Your task to perform on an android device: toggle data saver in the chrome app Image 0: 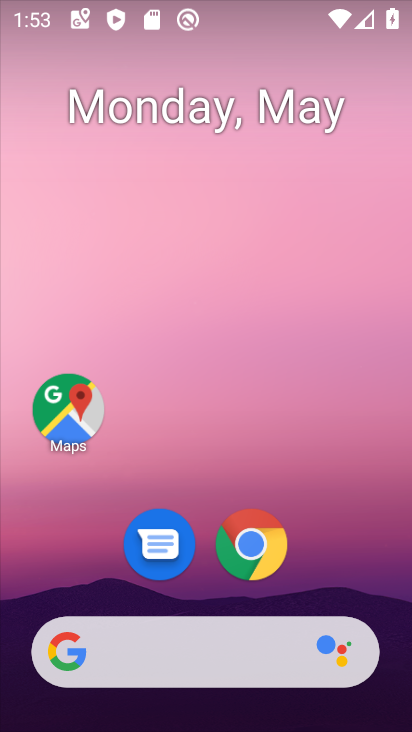
Step 0: drag from (372, 593) to (389, 322)
Your task to perform on an android device: toggle data saver in the chrome app Image 1: 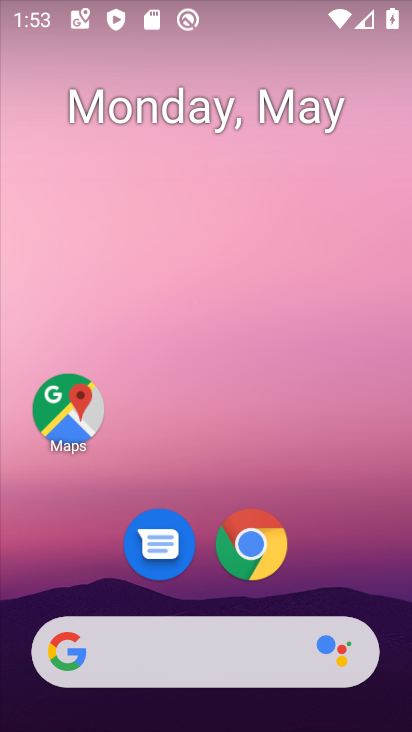
Step 1: drag from (343, 572) to (362, 283)
Your task to perform on an android device: toggle data saver in the chrome app Image 2: 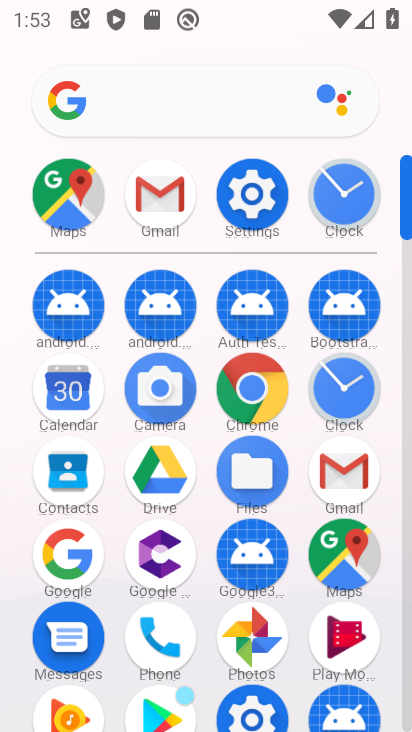
Step 2: click (279, 397)
Your task to perform on an android device: toggle data saver in the chrome app Image 3: 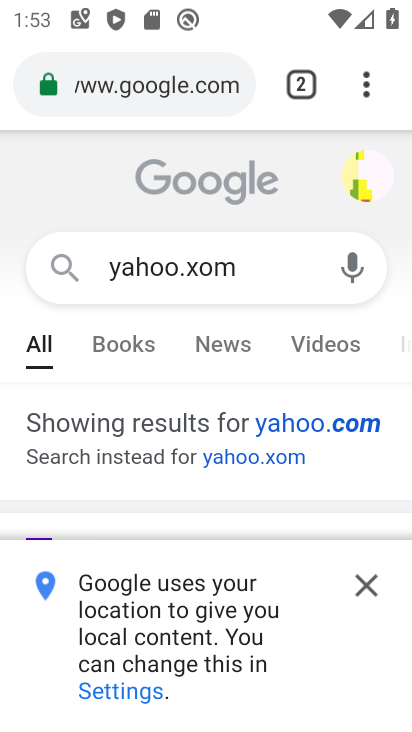
Step 3: click (366, 96)
Your task to perform on an android device: toggle data saver in the chrome app Image 4: 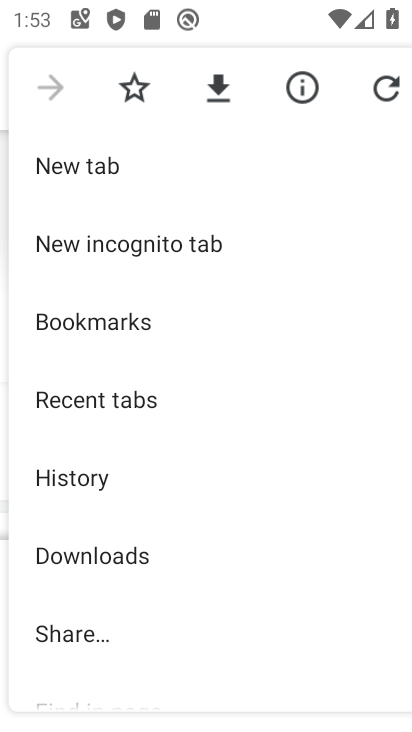
Step 4: drag from (301, 435) to (307, 392)
Your task to perform on an android device: toggle data saver in the chrome app Image 5: 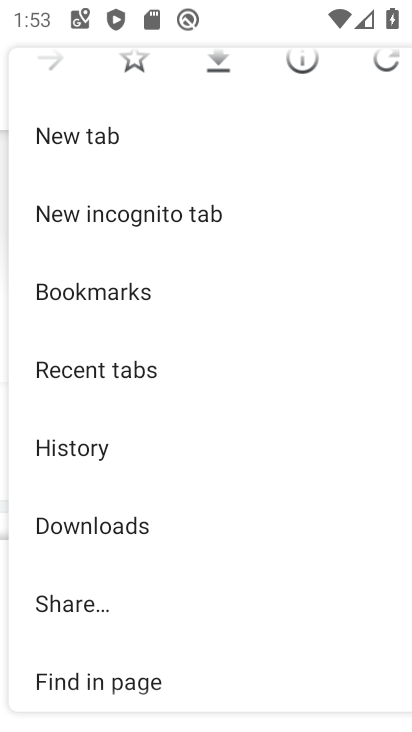
Step 5: drag from (297, 453) to (313, 378)
Your task to perform on an android device: toggle data saver in the chrome app Image 6: 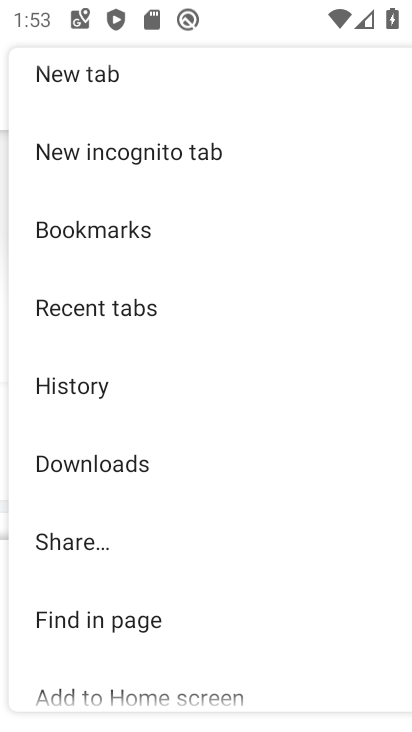
Step 6: drag from (302, 429) to (311, 295)
Your task to perform on an android device: toggle data saver in the chrome app Image 7: 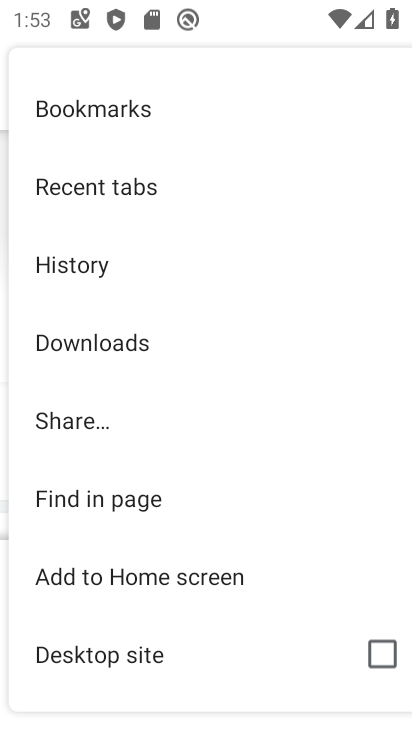
Step 7: drag from (306, 402) to (314, 281)
Your task to perform on an android device: toggle data saver in the chrome app Image 8: 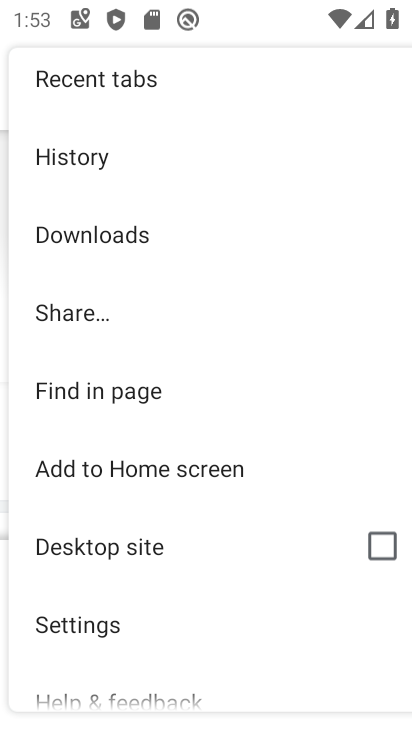
Step 8: drag from (282, 391) to (297, 277)
Your task to perform on an android device: toggle data saver in the chrome app Image 9: 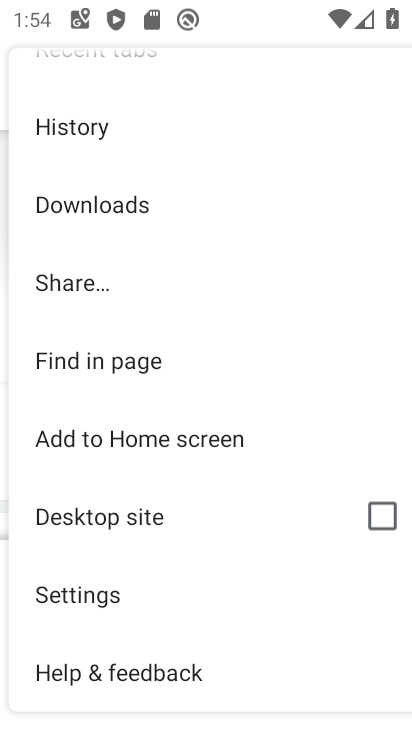
Step 9: drag from (282, 450) to (299, 337)
Your task to perform on an android device: toggle data saver in the chrome app Image 10: 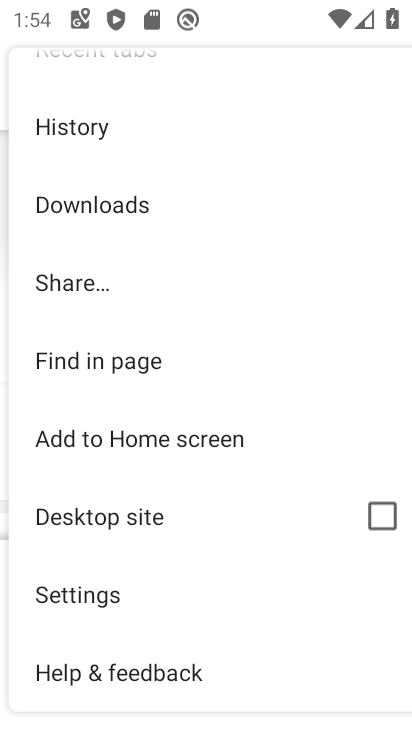
Step 10: click (174, 595)
Your task to perform on an android device: toggle data saver in the chrome app Image 11: 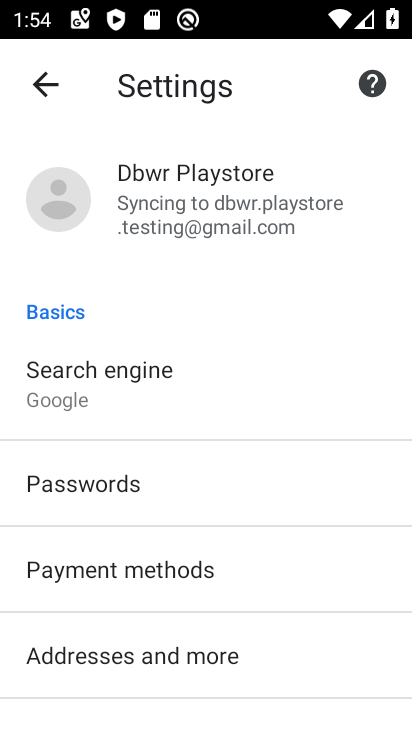
Step 11: drag from (293, 486) to (302, 446)
Your task to perform on an android device: toggle data saver in the chrome app Image 12: 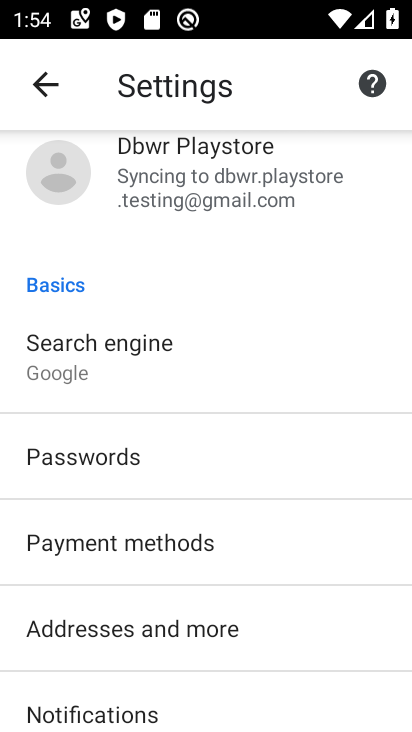
Step 12: drag from (305, 510) to (314, 457)
Your task to perform on an android device: toggle data saver in the chrome app Image 13: 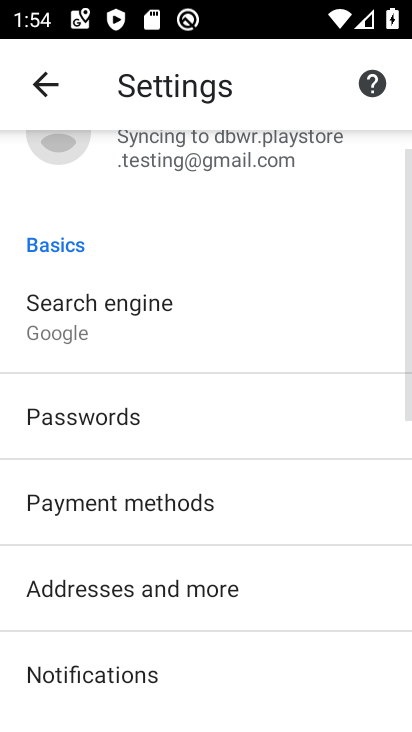
Step 13: drag from (304, 514) to (301, 474)
Your task to perform on an android device: toggle data saver in the chrome app Image 14: 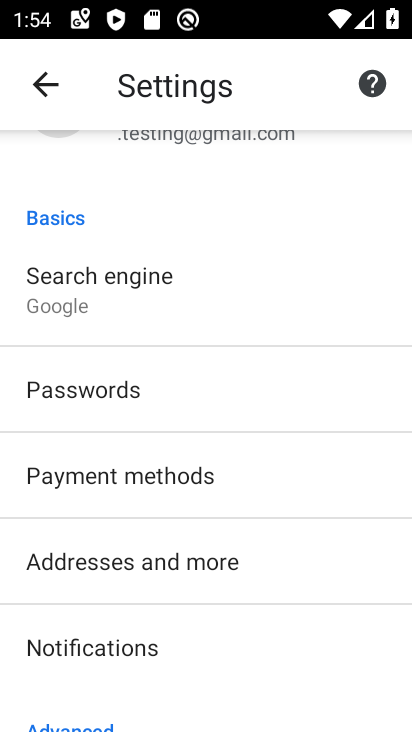
Step 14: drag from (297, 519) to (297, 474)
Your task to perform on an android device: toggle data saver in the chrome app Image 15: 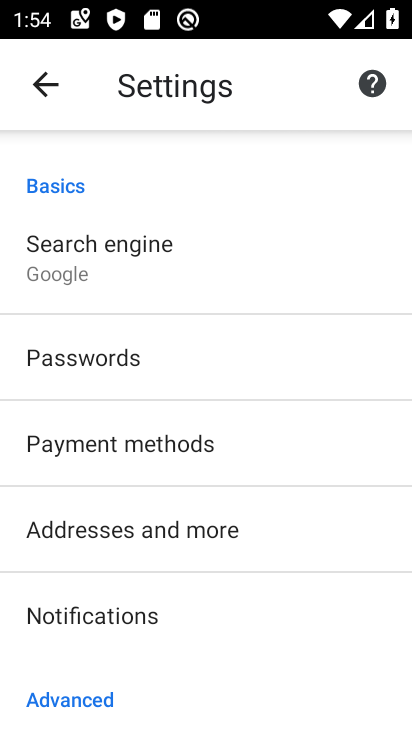
Step 15: click (300, 514)
Your task to perform on an android device: toggle data saver in the chrome app Image 16: 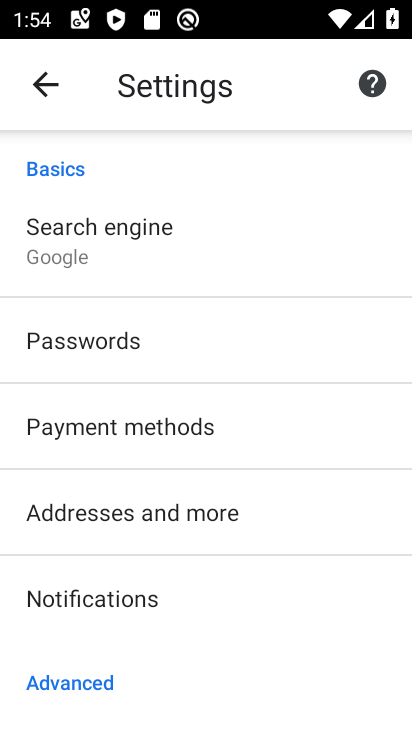
Step 16: click (311, 515)
Your task to perform on an android device: toggle data saver in the chrome app Image 17: 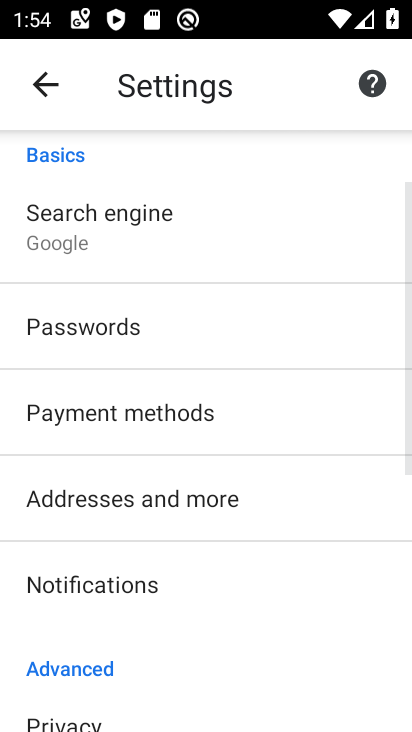
Step 17: click (305, 514)
Your task to perform on an android device: toggle data saver in the chrome app Image 18: 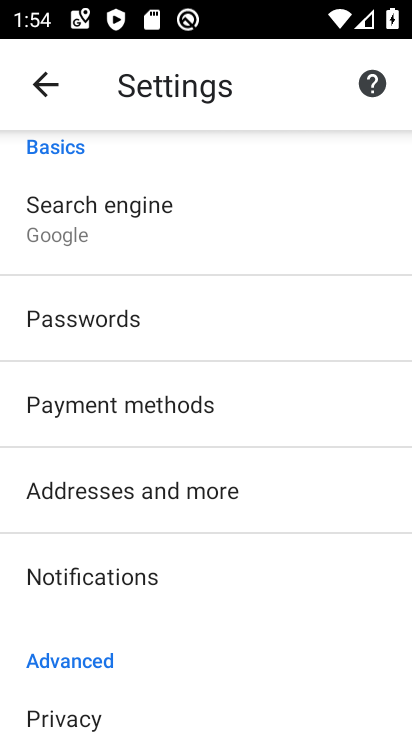
Step 18: drag from (299, 528) to (305, 485)
Your task to perform on an android device: toggle data saver in the chrome app Image 19: 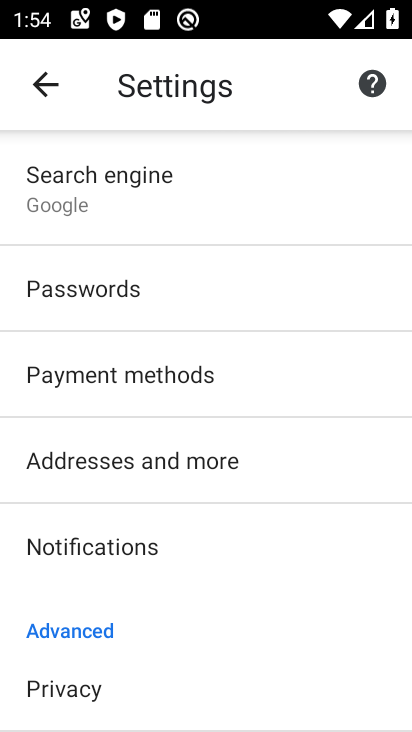
Step 19: drag from (315, 513) to (320, 454)
Your task to perform on an android device: toggle data saver in the chrome app Image 20: 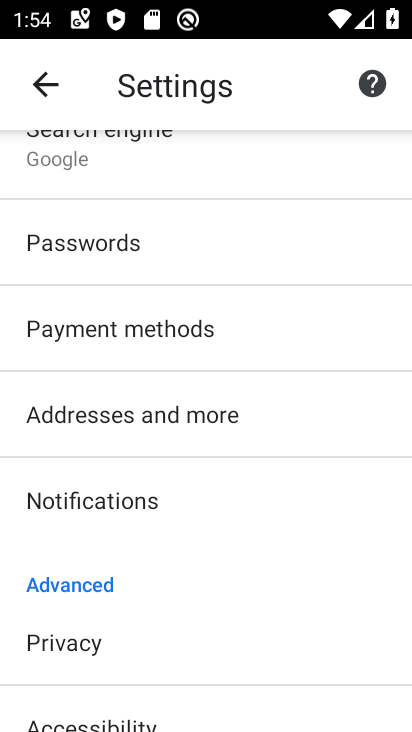
Step 20: drag from (315, 502) to (320, 440)
Your task to perform on an android device: toggle data saver in the chrome app Image 21: 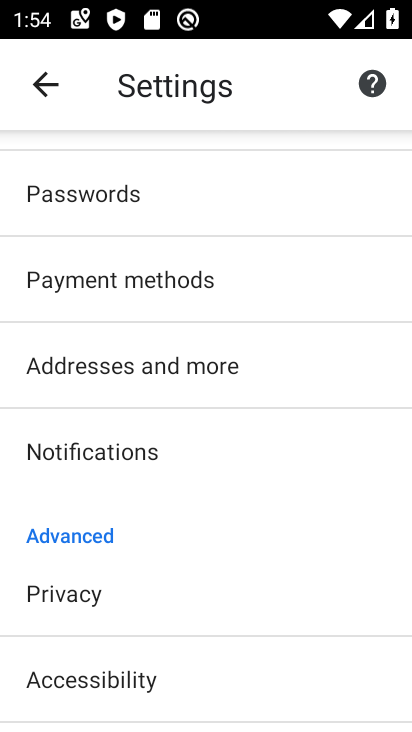
Step 21: drag from (307, 503) to (311, 429)
Your task to perform on an android device: toggle data saver in the chrome app Image 22: 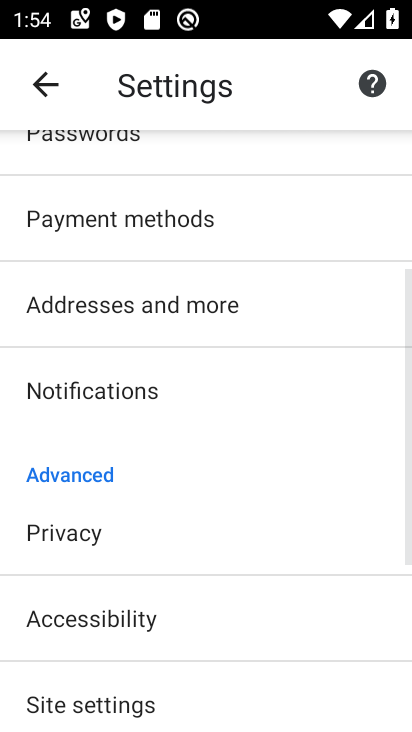
Step 22: drag from (305, 478) to (308, 430)
Your task to perform on an android device: toggle data saver in the chrome app Image 23: 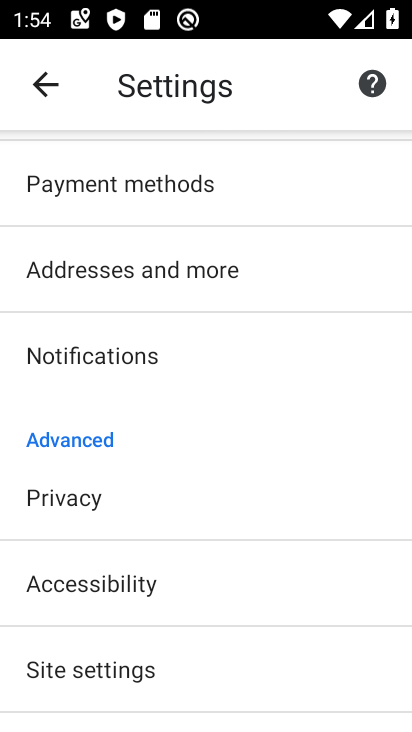
Step 23: drag from (298, 492) to (303, 438)
Your task to perform on an android device: toggle data saver in the chrome app Image 24: 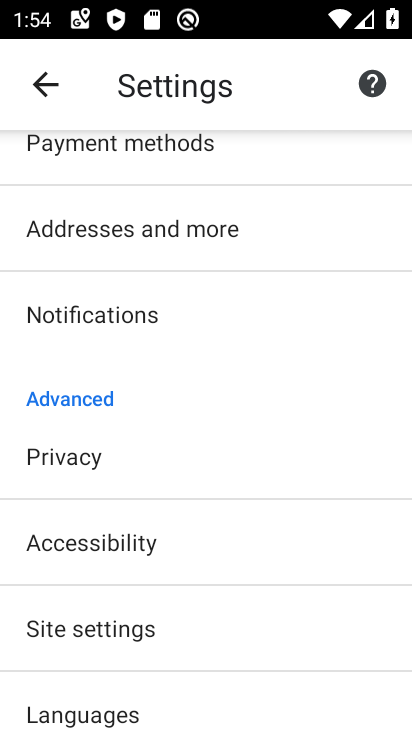
Step 24: drag from (299, 496) to (303, 431)
Your task to perform on an android device: toggle data saver in the chrome app Image 25: 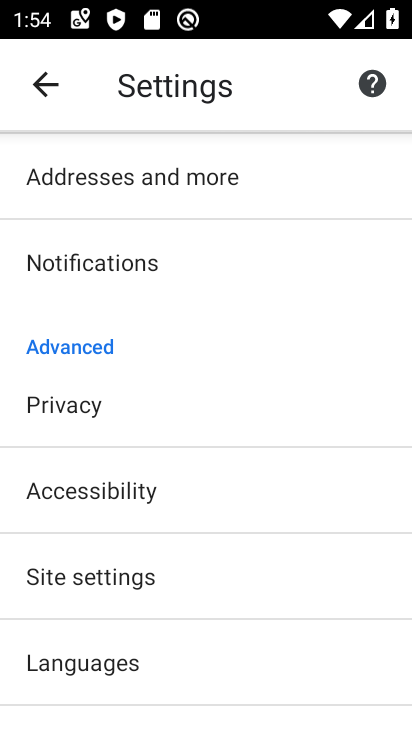
Step 25: drag from (302, 473) to (307, 427)
Your task to perform on an android device: toggle data saver in the chrome app Image 26: 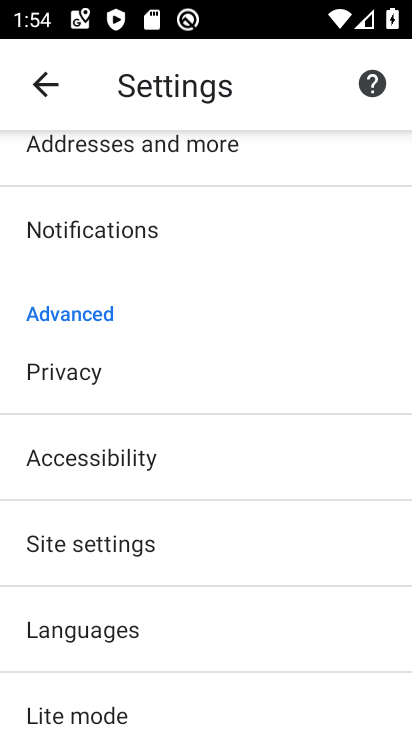
Step 26: drag from (305, 465) to (320, 401)
Your task to perform on an android device: toggle data saver in the chrome app Image 27: 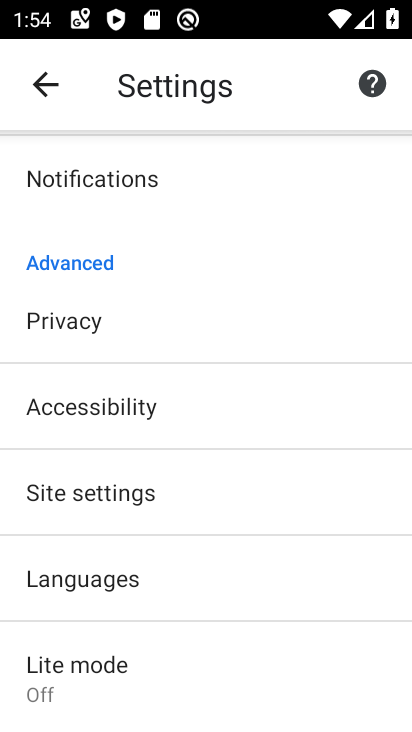
Step 27: drag from (310, 479) to (316, 430)
Your task to perform on an android device: toggle data saver in the chrome app Image 28: 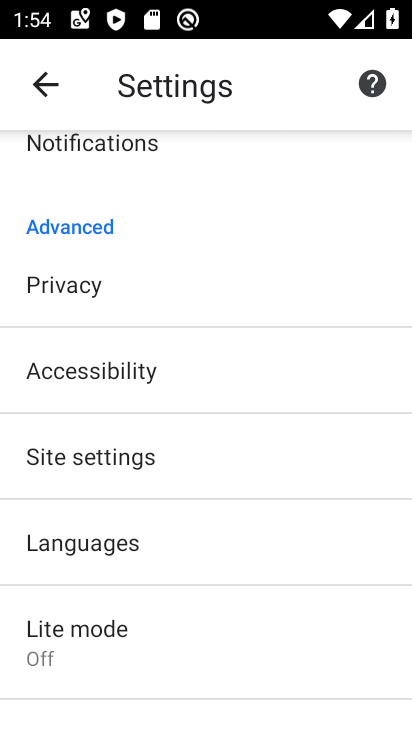
Step 28: click (306, 483)
Your task to perform on an android device: toggle data saver in the chrome app Image 29: 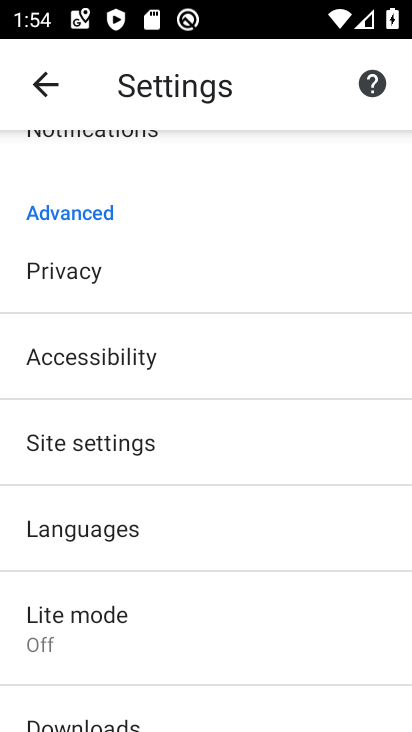
Step 29: drag from (298, 489) to (297, 396)
Your task to perform on an android device: toggle data saver in the chrome app Image 30: 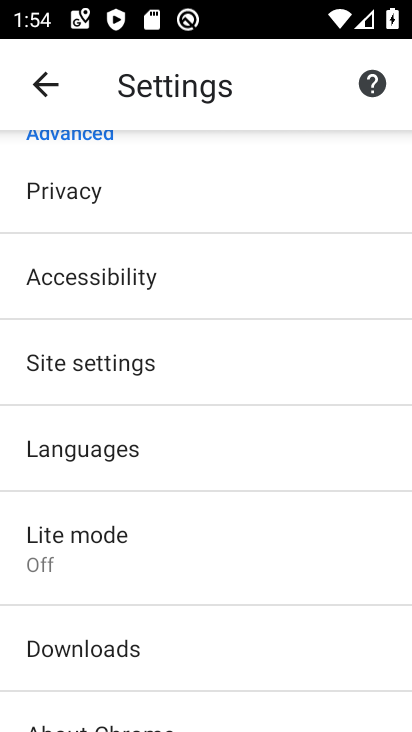
Step 30: drag from (268, 482) to (287, 369)
Your task to perform on an android device: toggle data saver in the chrome app Image 31: 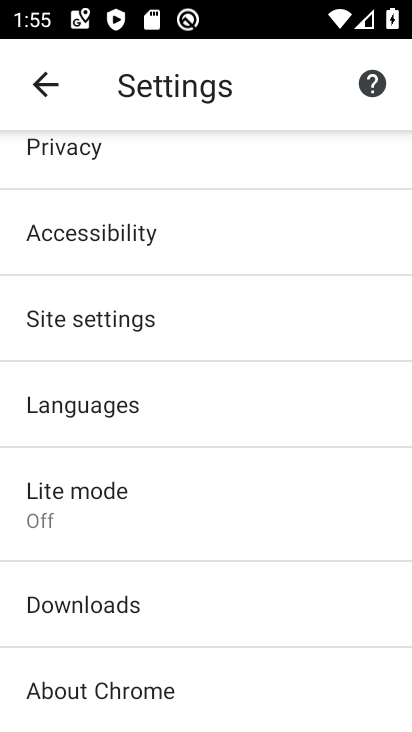
Step 31: click (247, 495)
Your task to perform on an android device: toggle data saver in the chrome app Image 32: 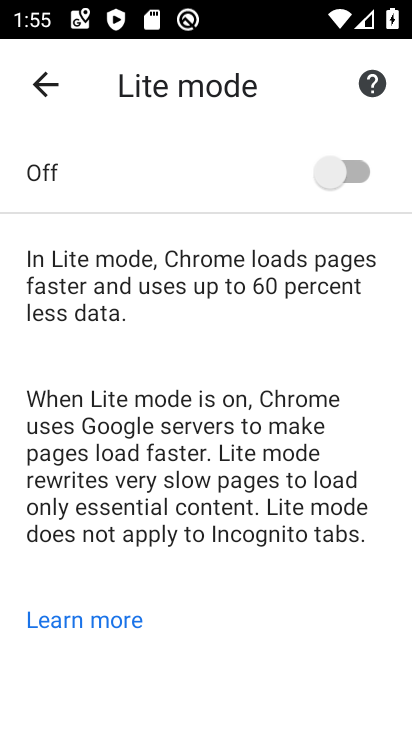
Step 32: click (342, 188)
Your task to perform on an android device: toggle data saver in the chrome app Image 33: 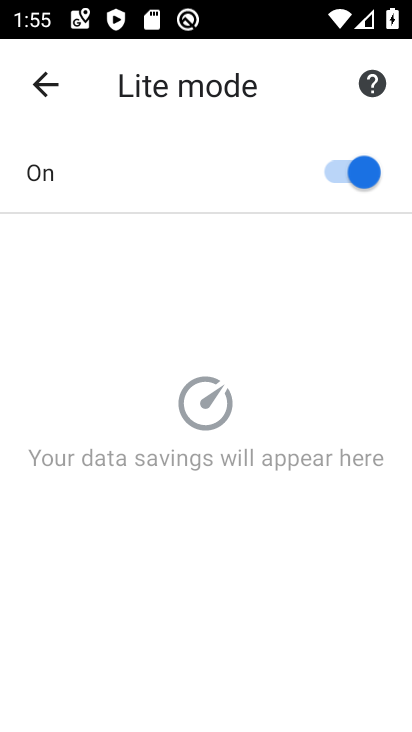
Step 33: task complete